Your task to perform on an android device: add a contact Image 0: 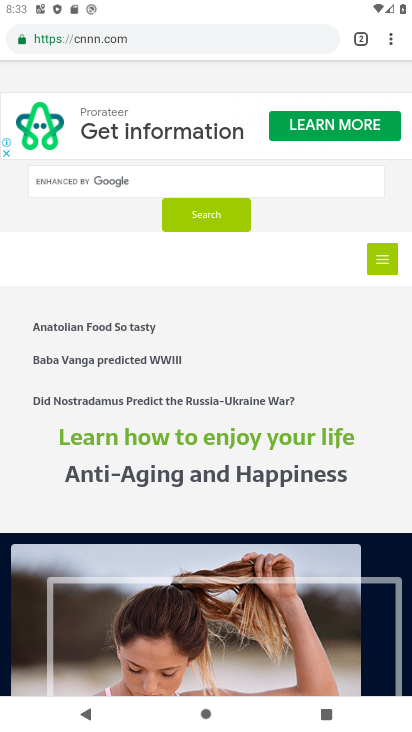
Step 0: press home button
Your task to perform on an android device: add a contact Image 1: 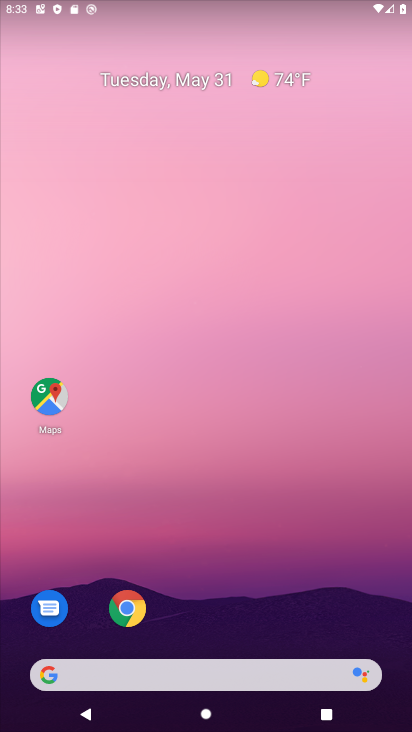
Step 1: drag from (219, 630) to (132, 100)
Your task to perform on an android device: add a contact Image 2: 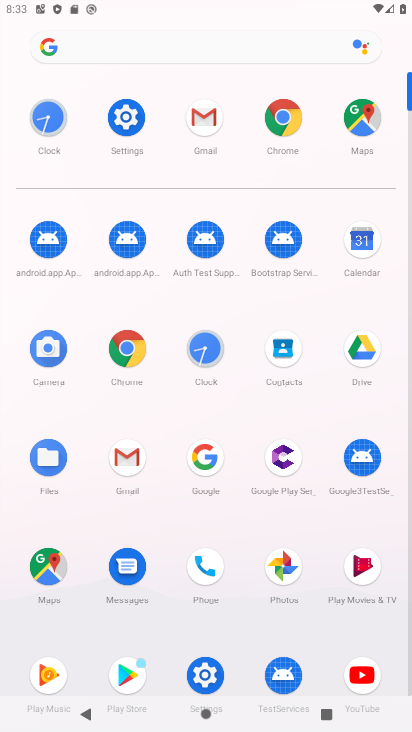
Step 2: click (199, 574)
Your task to perform on an android device: add a contact Image 3: 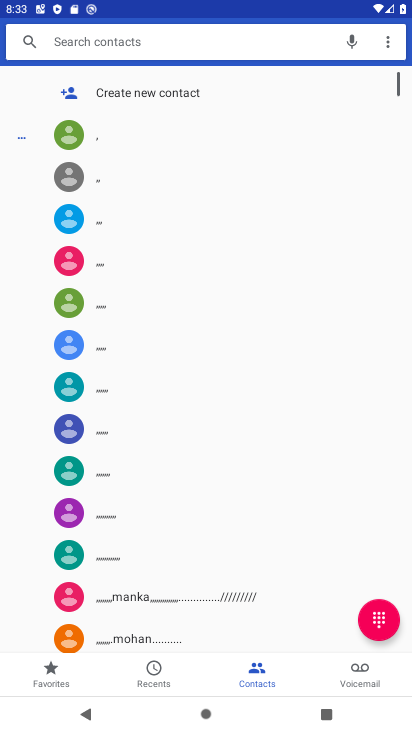
Step 3: click (258, 688)
Your task to perform on an android device: add a contact Image 4: 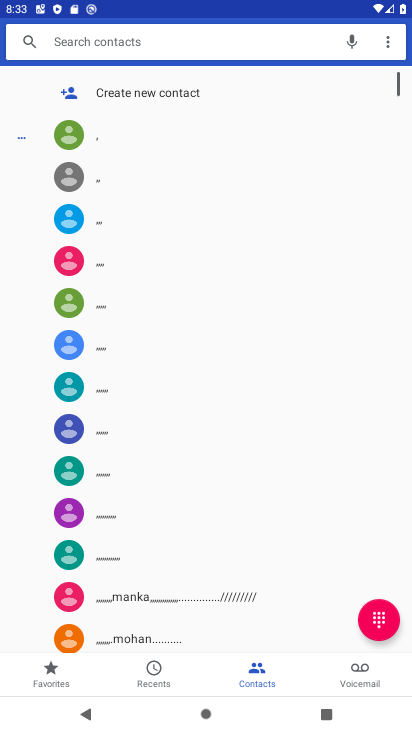
Step 4: click (180, 90)
Your task to perform on an android device: add a contact Image 5: 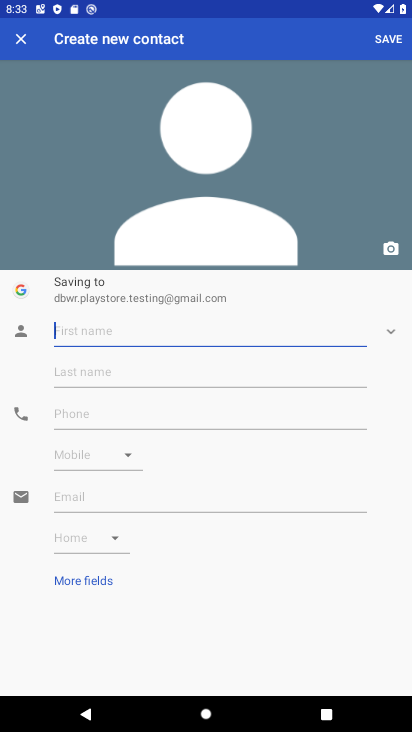
Step 5: type "juio"
Your task to perform on an android device: add a contact Image 6: 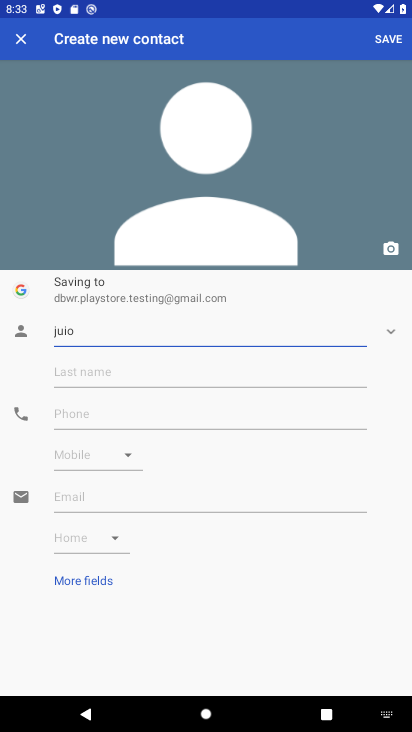
Step 6: click (235, 427)
Your task to perform on an android device: add a contact Image 7: 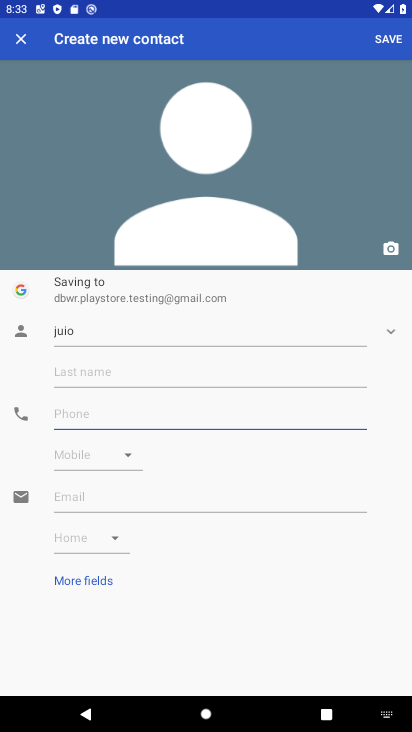
Step 7: type "78987"
Your task to perform on an android device: add a contact Image 8: 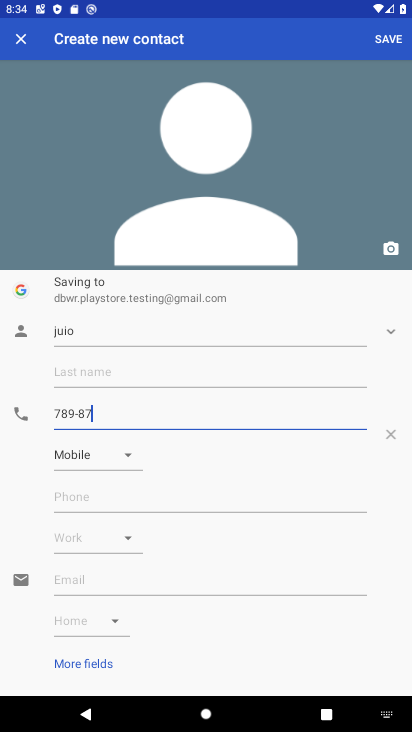
Step 8: click (393, 27)
Your task to perform on an android device: add a contact Image 9: 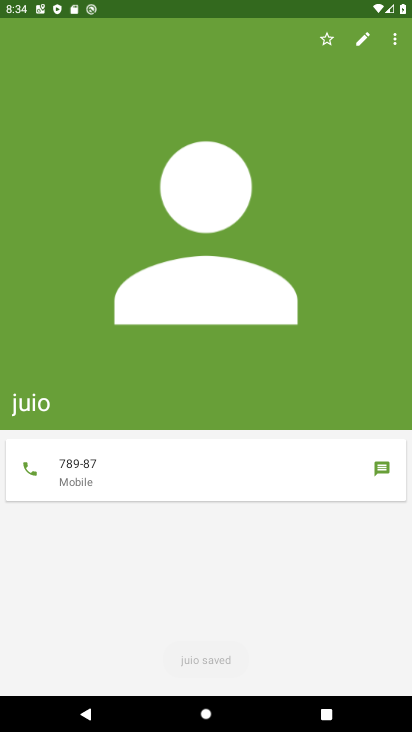
Step 9: task complete